Your task to perform on an android device: Open settings Image 0: 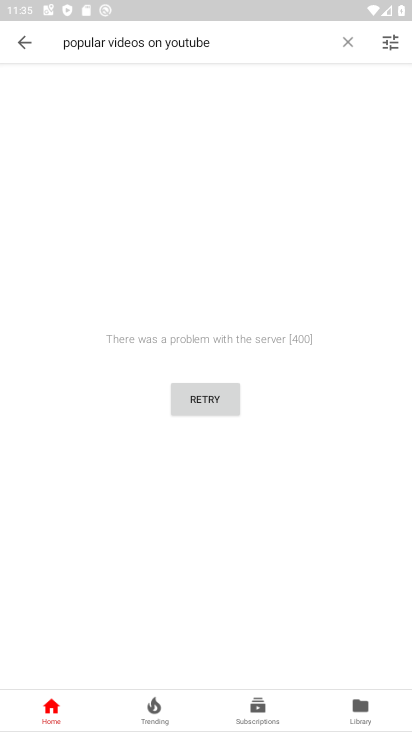
Step 0: press back button
Your task to perform on an android device: Open settings Image 1: 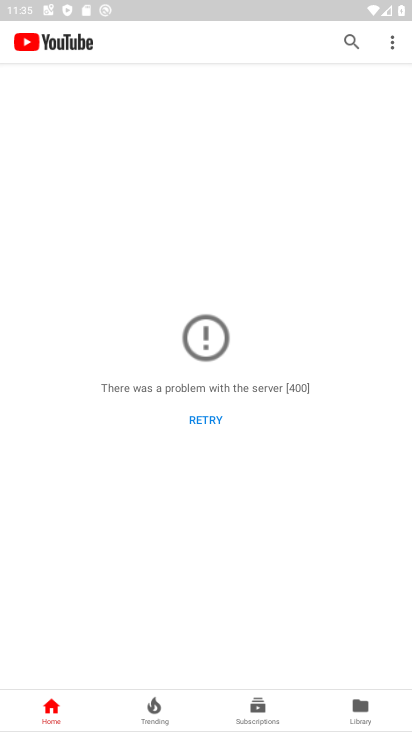
Step 1: press back button
Your task to perform on an android device: Open settings Image 2: 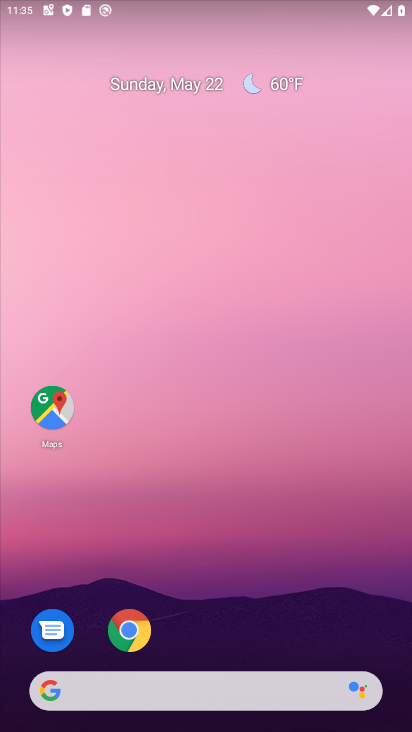
Step 2: drag from (218, 524) to (206, 77)
Your task to perform on an android device: Open settings Image 3: 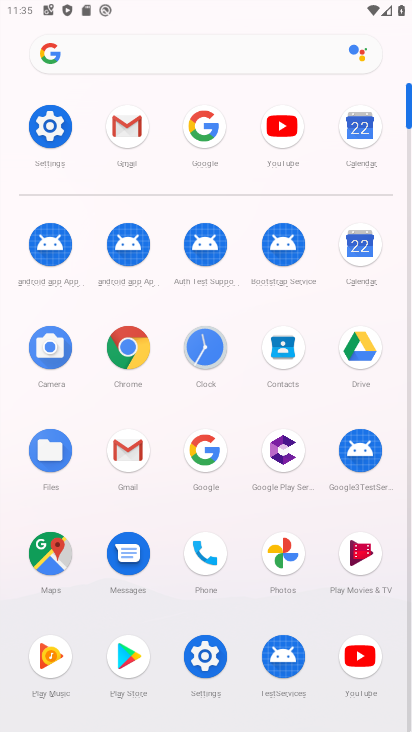
Step 3: click (50, 125)
Your task to perform on an android device: Open settings Image 4: 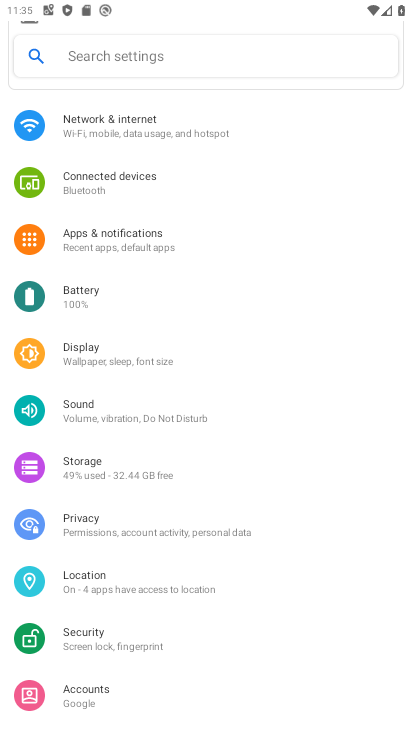
Step 4: task complete